Your task to perform on an android device: Find coffee shops on Maps Image 0: 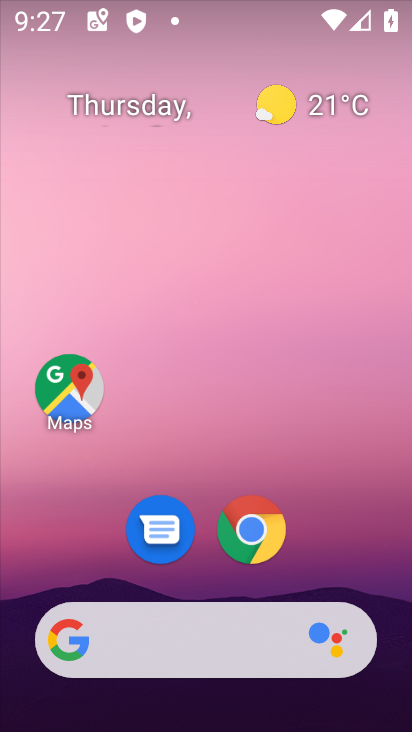
Step 0: click (70, 388)
Your task to perform on an android device: Find coffee shops on Maps Image 1: 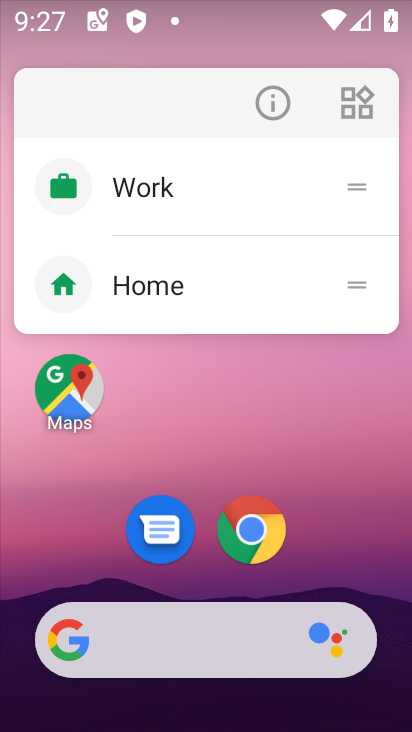
Step 1: click (70, 387)
Your task to perform on an android device: Find coffee shops on Maps Image 2: 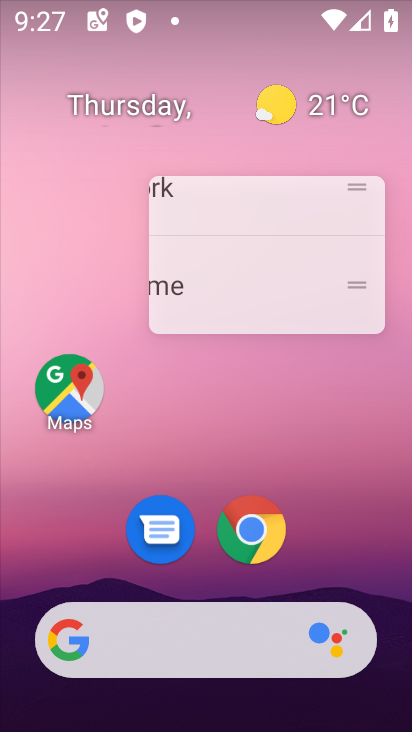
Step 2: click (70, 387)
Your task to perform on an android device: Find coffee shops on Maps Image 3: 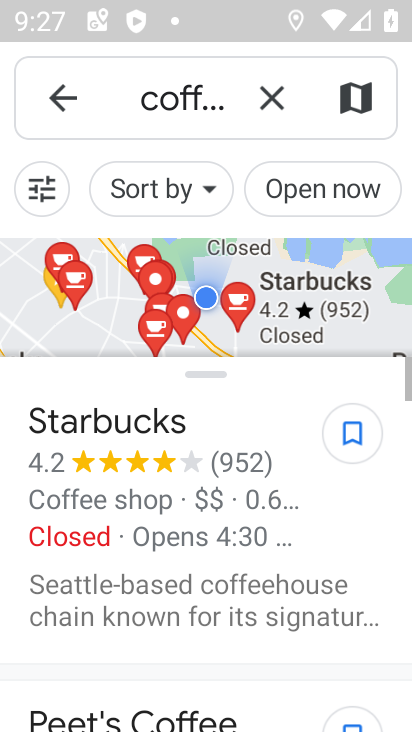
Step 3: task complete